Your task to perform on an android device: Go to battery settings Image 0: 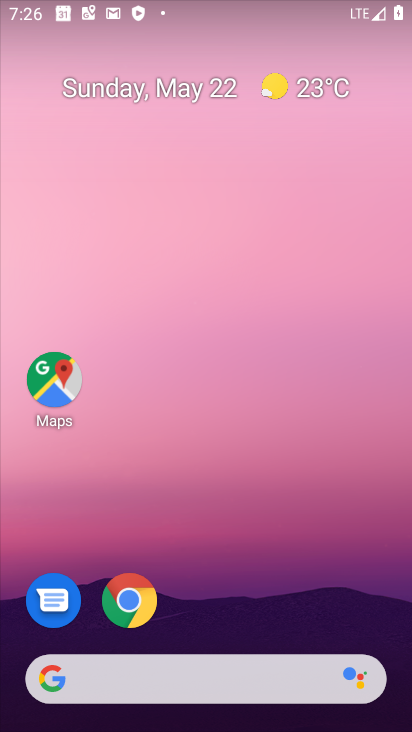
Step 0: drag from (373, 632) to (243, 31)
Your task to perform on an android device: Go to battery settings Image 1: 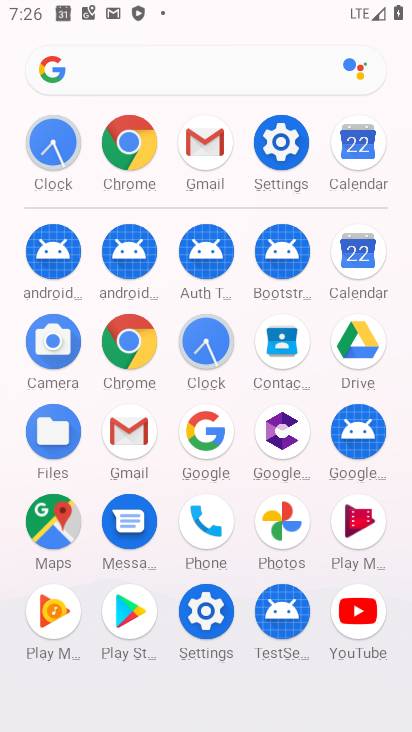
Step 1: click (273, 164)
Your task to perform on an android device: Go to battery settings Image 2: 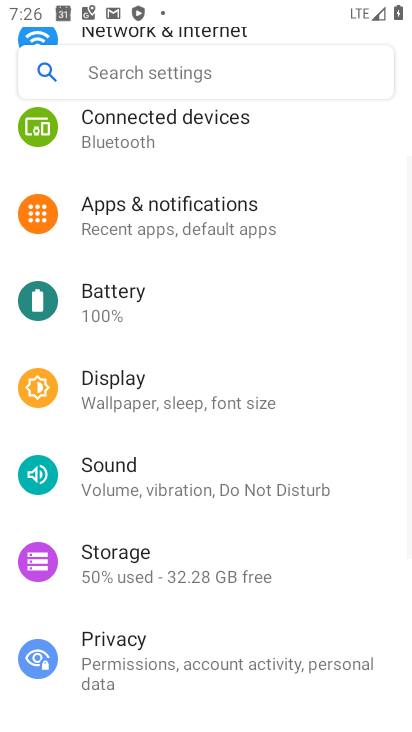
Step 2: click (154, 314)
Your task to perform on an android device: Go to battery settings Image 3: 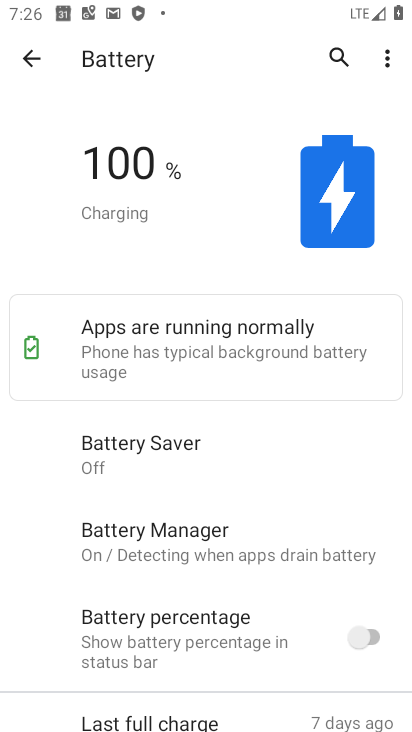
Step 3: task complete